Your task to perform on an android device: turn off wifi Image 0: 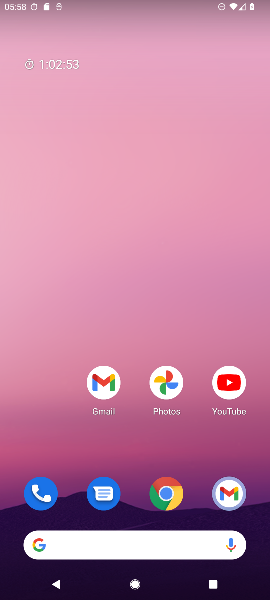
Step 0: press home button
Your task to perform on an android device: turn off wifi Image 1: 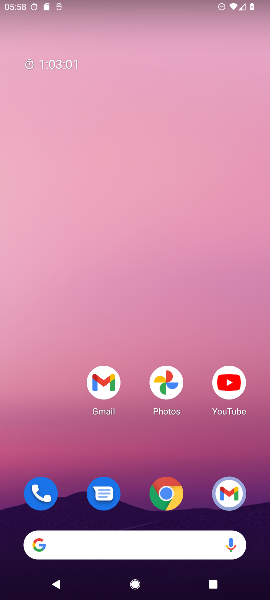
Step 1: drag from (66, 452) to (88, 74)
Your task to perform on an android device: turn off wifi Image 2: 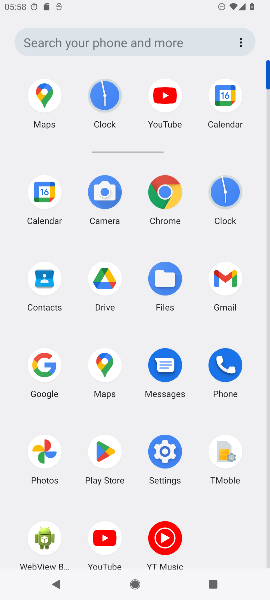
Step 2: click (161, 454)
Your task to perform on an android device: turn off wifi Image 3: 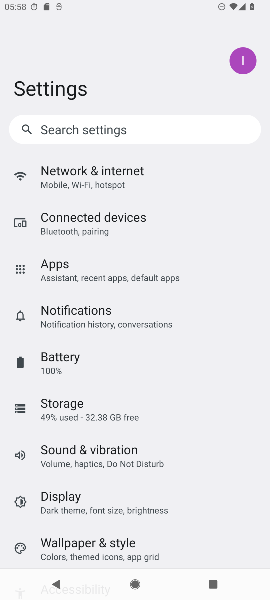
Step 3: drag from (219, 420) to (235, 318)
Your task to perform on an android device: turn off wifi Image 4: 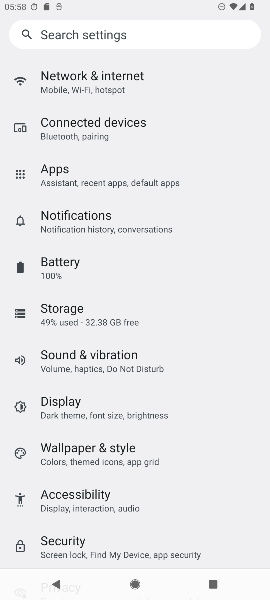
Step 4: drag from (210, 471) to (232, 350)
Your task to perform on an android device: turn off wifi Image 5: 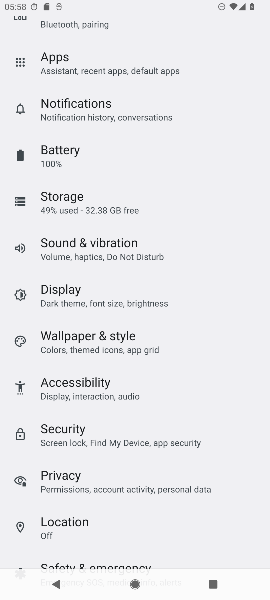
Step 5: drag from (232, 484) to (244, 330)
Your task to perform on an android device: turn off wifi Image 6: 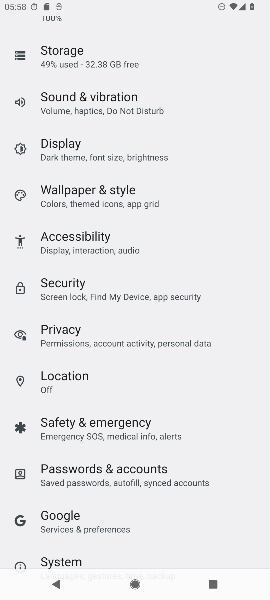
Step 6: drag from (228, 486) to (233, 335)
Your task to perform on an android device: turn off wifi Image 7: 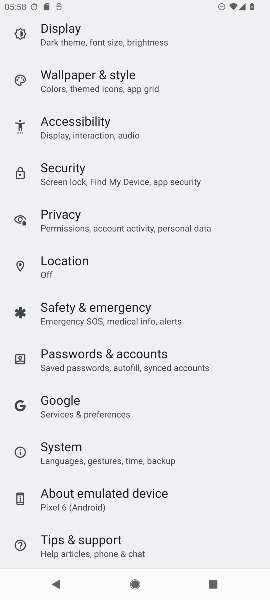
Step 7: drag from (221, 489) to (235, 330)
Your task to perform on an android device: turn off wifi Image 8: 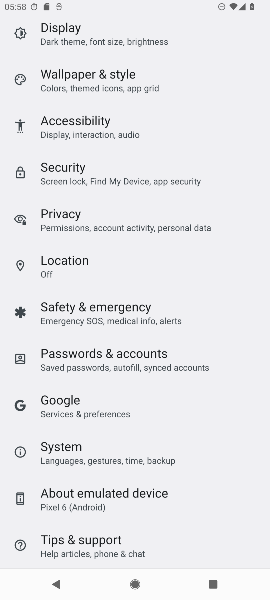
Step 8: drag from (240, 176) to (248, 273)
Your task to perform on an android device: turn off wifi Image 9: 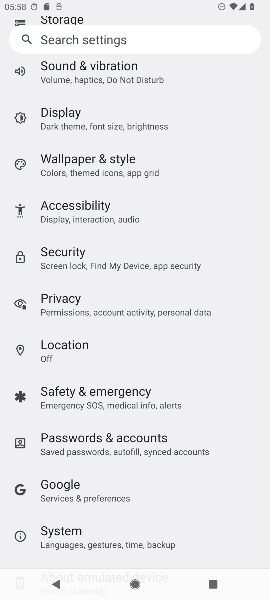
Step 9: drag from (238, 158) to (235, 272)
Your task to perform on an android device: turn off wifi Image 10: 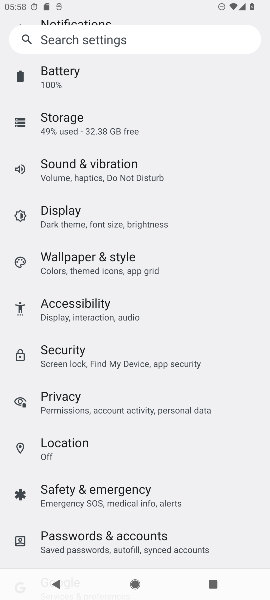
Step 10: drag from (232, 132) to (236, 257)
Your task to perform on an android device: turn off wifi Image 11: 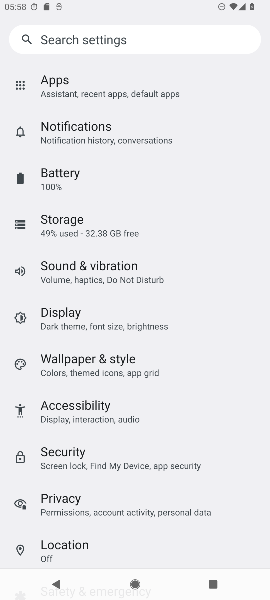
Step 11: drag from (230, 99) to (234, 233)
Your task to perform on an android device: turn off wifi Image 12: 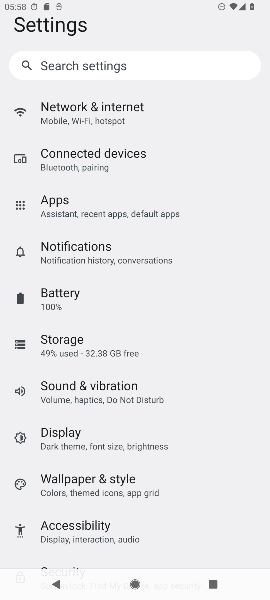
Step 12: drag from (233, 117) to (228, 261)
Your task to perform on an android device: turn off wifi Image 13: 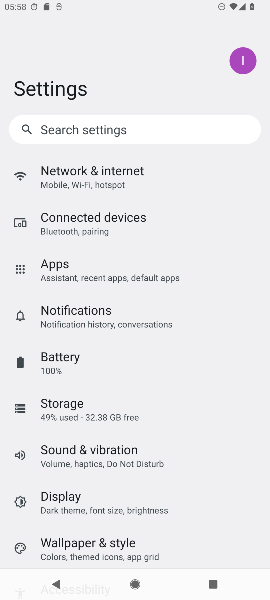
Step 13: click (142, 177)
Your task to perform on an android device: turn off wifi Image 14: 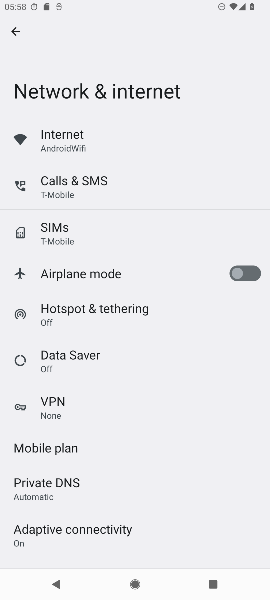
Step 14: click (72, 149)
Your task to perform on an android device: turn off wifi Image 15: 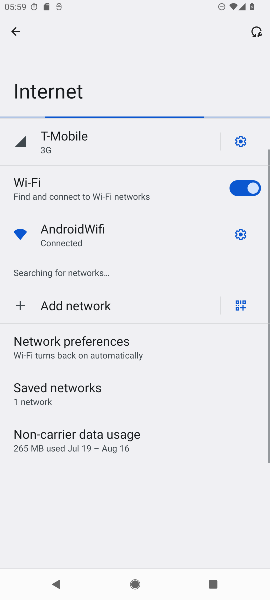
Step 15: click (239, 190)
Your task to perform on an android device: turn off wifi Image 16: 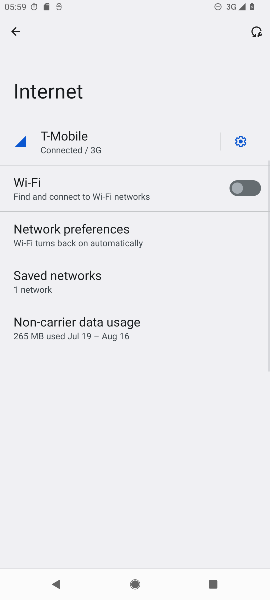
Step 16: task complete